Your task to perform on an android device: change notification settings in the gmail app Image 0: 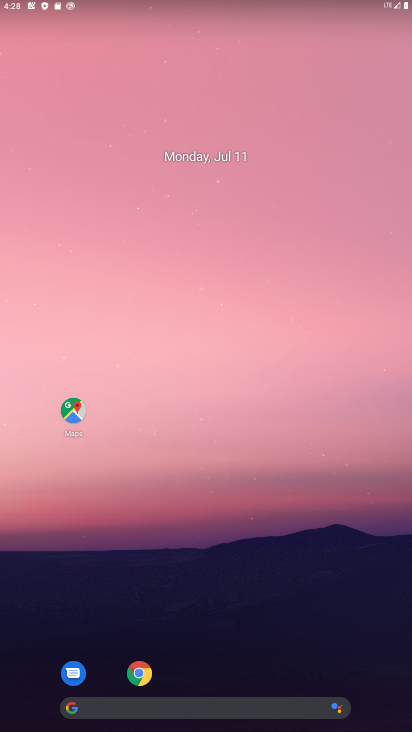
Step 0: drag from (206, 707) to (241, 63)
Your task to perform on an android device: change notification settings in the gmail app Image 1: 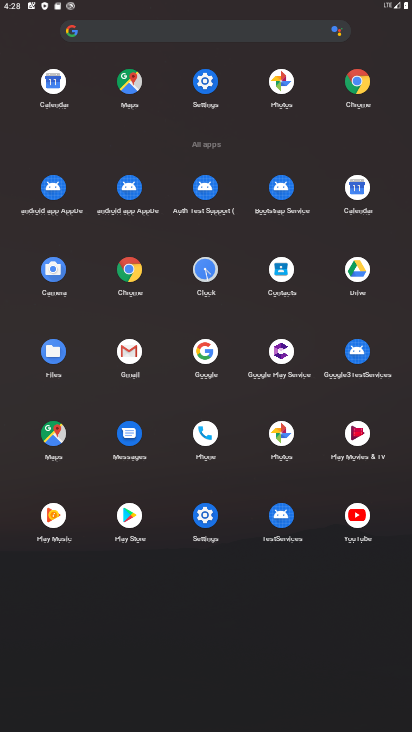
Step 1: click (129, 351)
Your task to perform on an android device: change notification settings in the gmail app Image 2: 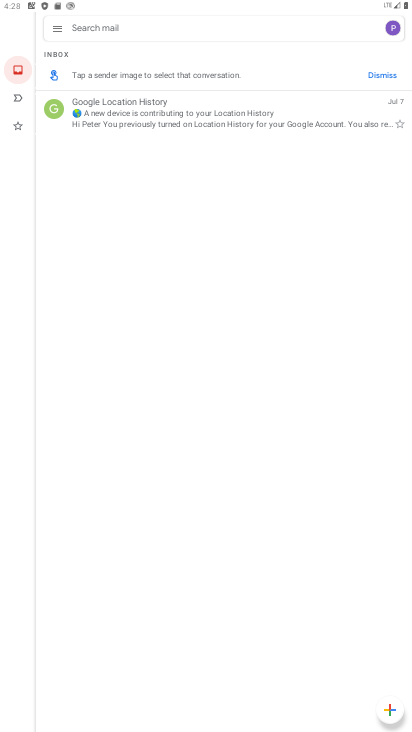
Step 2: click (59, 32)
Your task to perform on an android device: change notification settings in the gmail app Image 3: 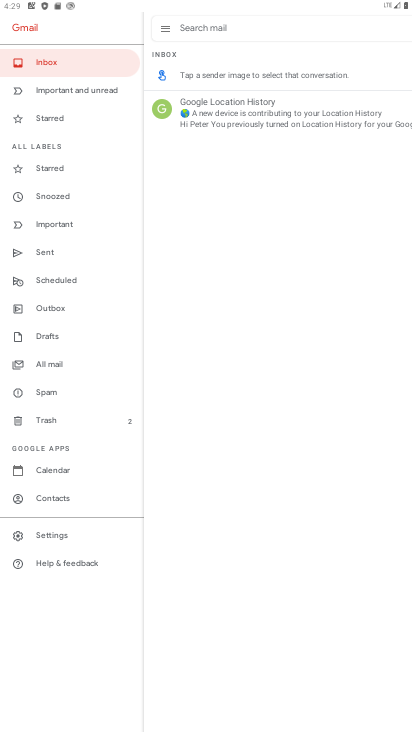
Step 3: click (53, 537)
Your task to perform on an android device: change notification settings in the gmail app Image 4: 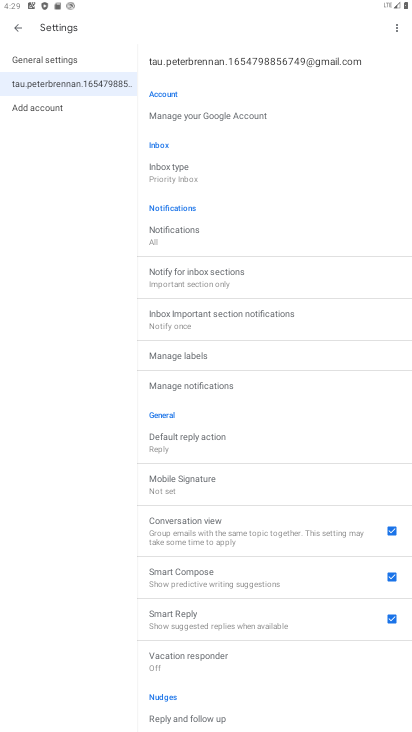
Step 4: click (175, 385)
Your task to perform on an android device: change notification settings in the gmail app Image 5: 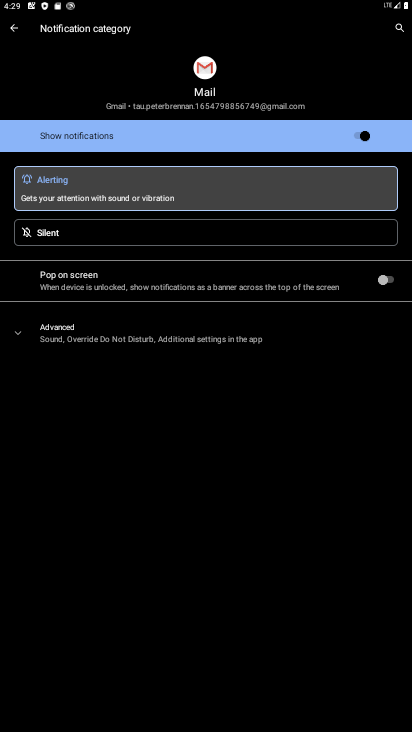
Step 5: click (365, 137)
Your task to perform on an android device: change notification settings in the gmail app Image 6: 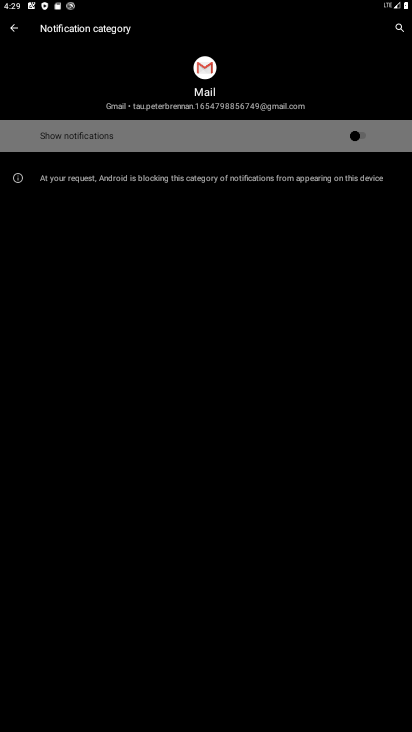
Step 6: task complete